Your task to perform on an android device: turn on improve location accuracy Image 0: 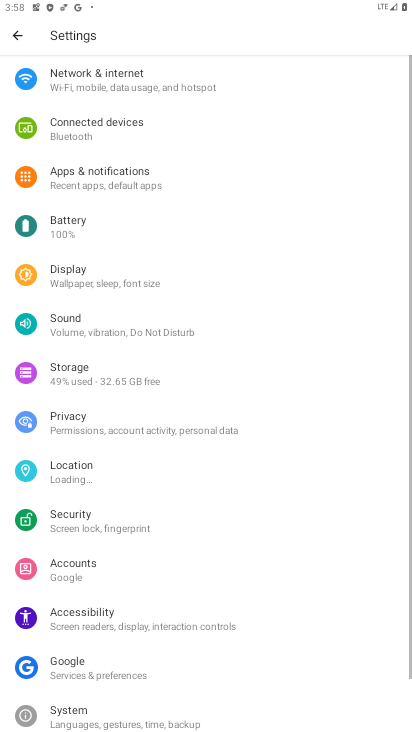
Step 0: press home button
Your task to perform on an android device: turn on improve location accuracy Image 1: 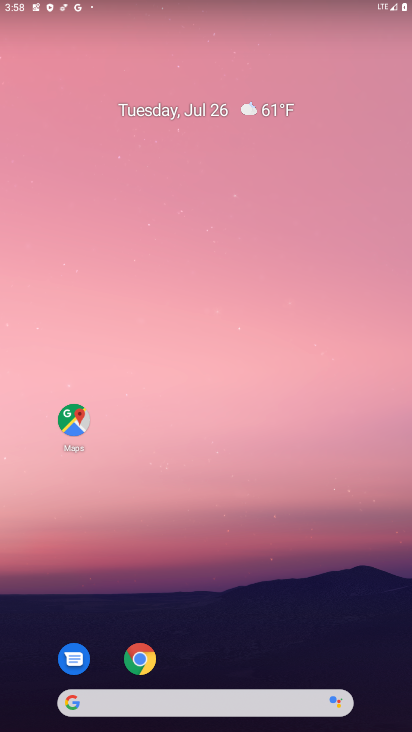
Step 1: drag from (306, 572) to (277, 18)
Your task to perform on an android device: turn on improve location accuracy Image 2: 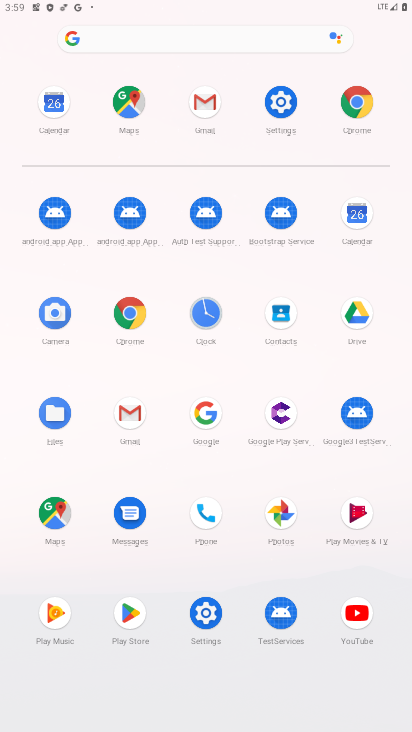
Step 2: click (286, 107)
Your task to perform on an android device: turn on improve location accuracy Image 3: 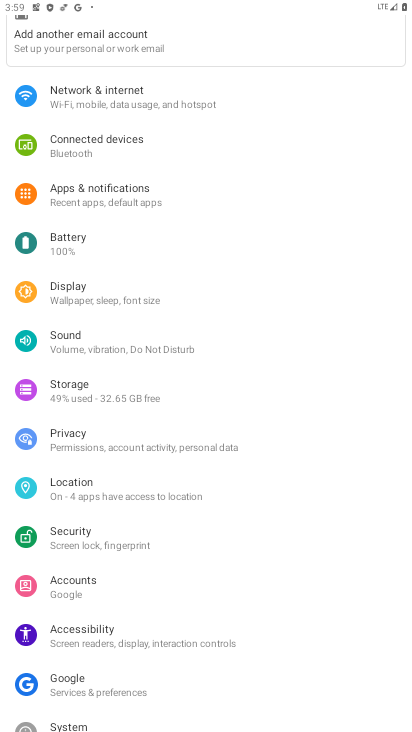
Step 3: click (78, 499)
Your task to perform on an android device: turn on improve location accuracy Image 4: 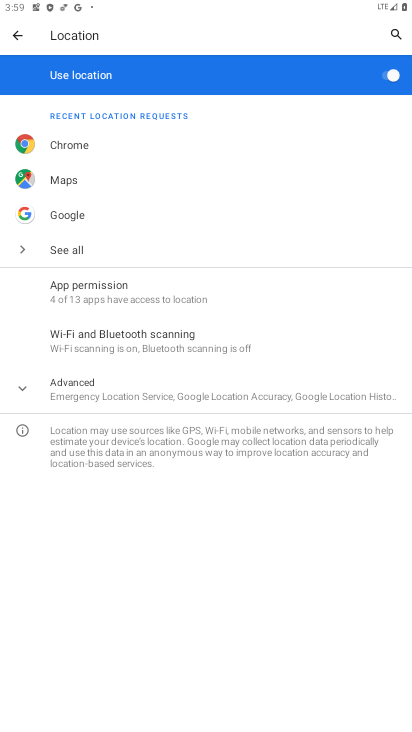
Step 4: click (127, 394)
Your task to perform on an android device: turn on improve location accuracy Image 5: 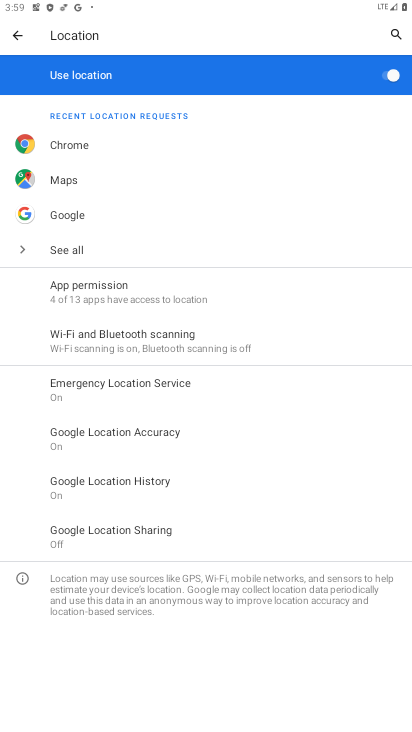
Step 5: click (150, 430)
Your task to perform on an android device: turn on improve location accuracy Image 6: 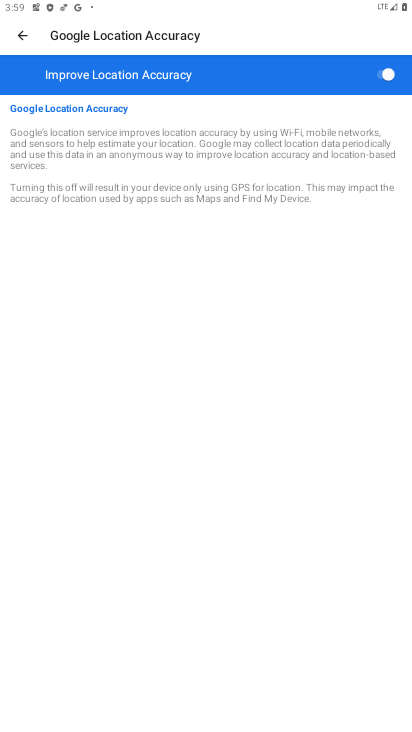
Step 6: task complete